Your task to perform on an android device: Go to battery settings Image 0: 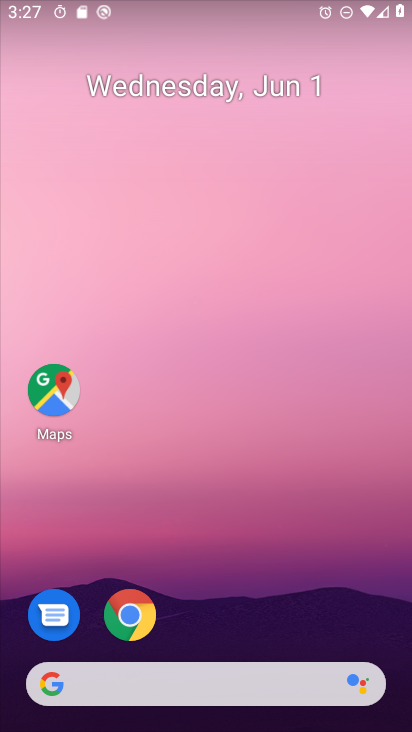
Step 0: drag from (268, 630) to (270, 54)
Your task to perform on an android device: Go to battery settings Image 1: 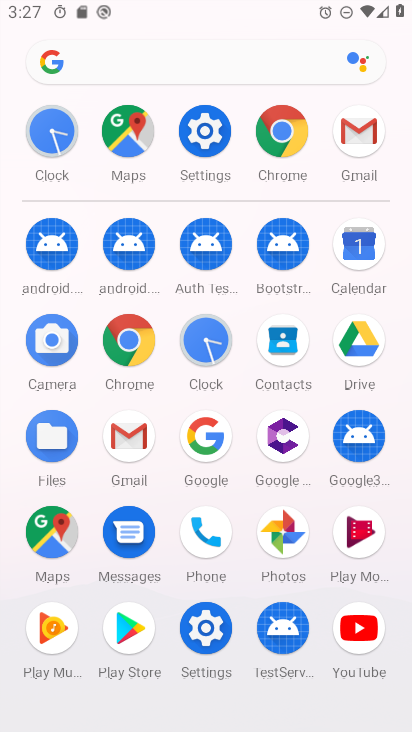
Step 1: click (219, 139)
Your task to perform on an android device: Go to battery settings Image 2: 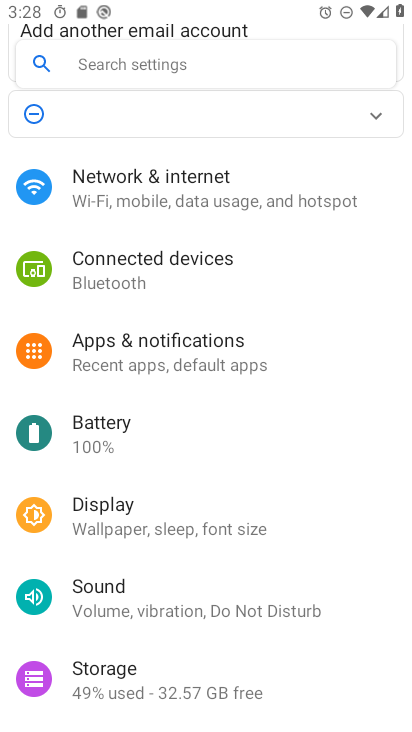
Step 2: click (163, 450)
Your task to perform on an android device: Go to battery settings Image 3: 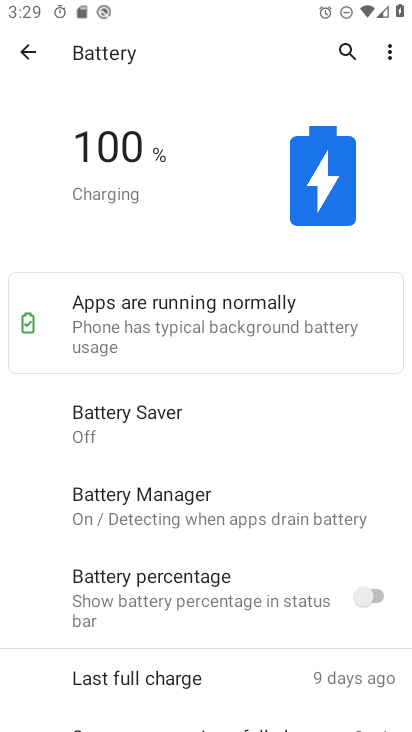
Step 3: task complete